Your task to perform on an android device: Open the phone app and click the voicemail tab. Image 0: 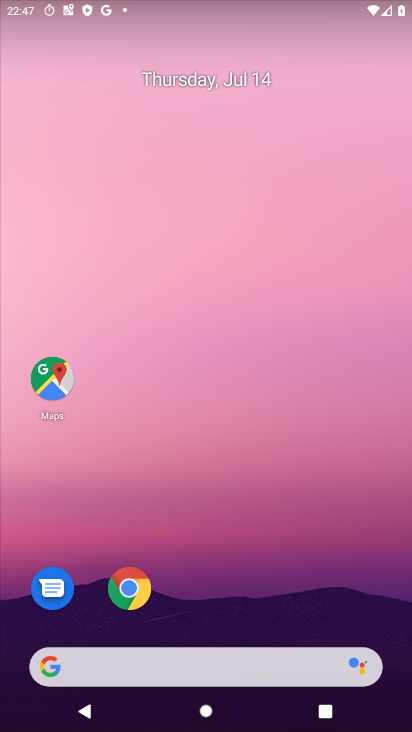
Step 0: drag from (223, 601) to (236, 40)
Your task to perform on an android device: Open the phone app and click the voicemail tab. Image 1: 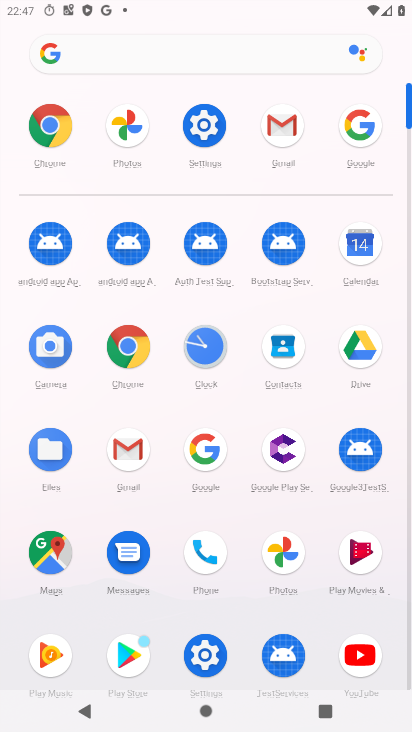
Step 1: click (207, 553)
Your task to perform on an android device: Open the phone app and click the voicemail tab. Image 2: 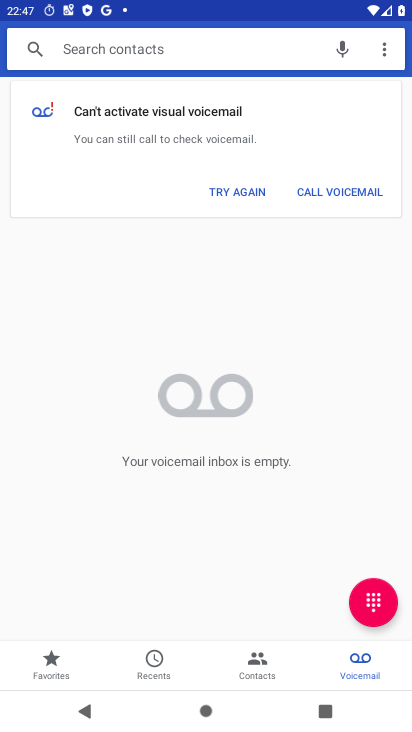
Step 2: task complete